Your task to perform on an android device: toggle location history Image 0: 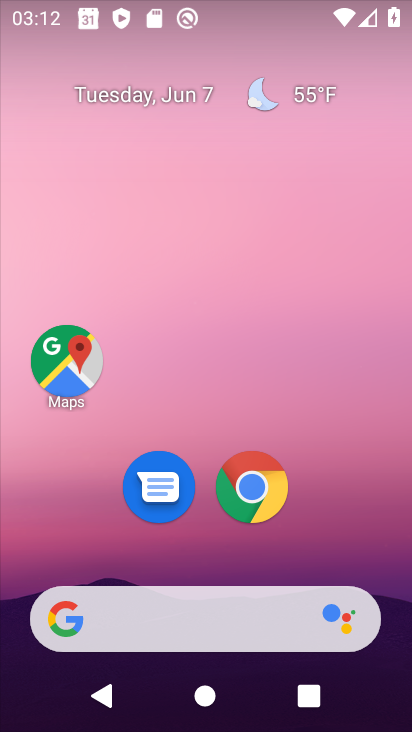
Step 0: drag from (242, 652) to (188, 144)
Your task to perform on an android device: toggle location history Image 1: 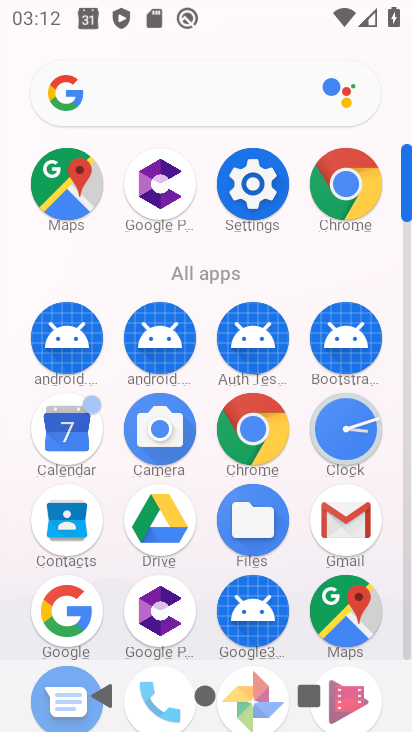
Step 1: click (246, 194)
Your task to perform on an android device: toggle location history Image 2: 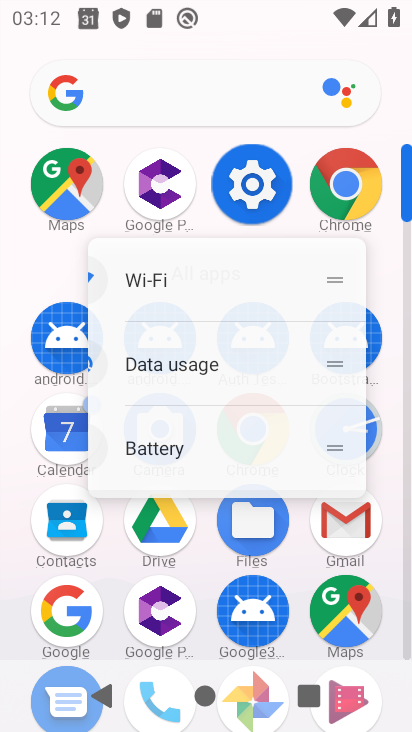
Step 2: click (246, 194)
Your task to perform on an android device: toggle location history Image 3: 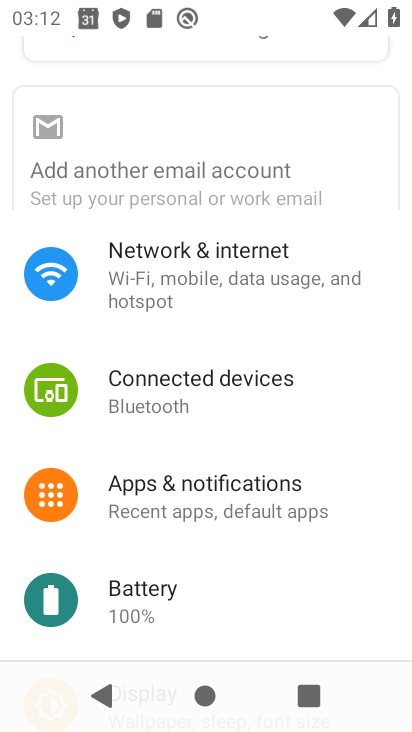
Step 3: click (246, 194)
Your task to perform on an android device: toggle location history Image 4: 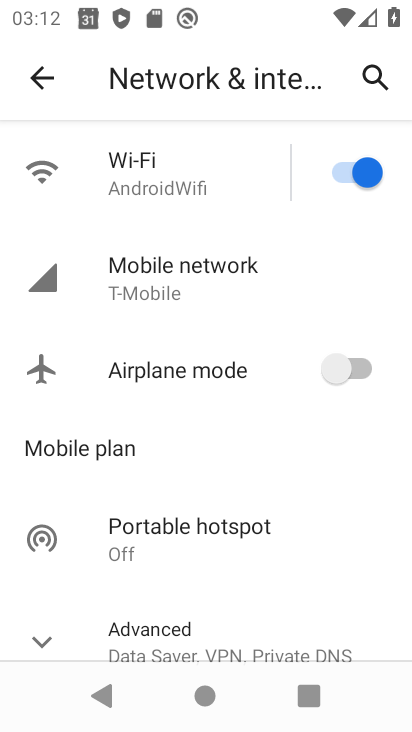
Step 4: click (36, 77)
Your task to perform on an android device: toggle location history Image 5: 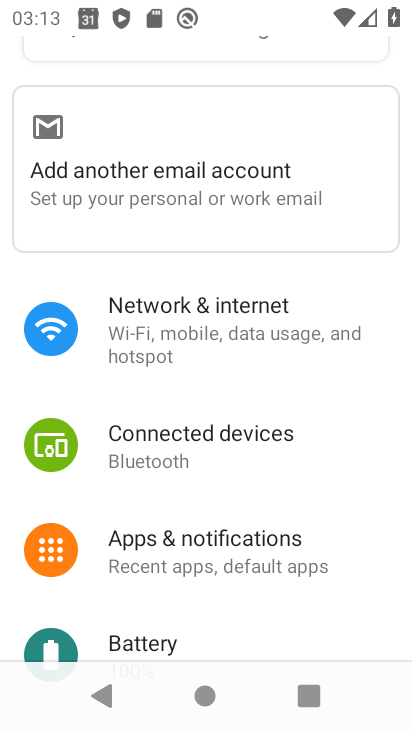
Step 5: drag from (162, 455) to (145, 258)
Your task to perform on an android device: toggle location history Image 6: 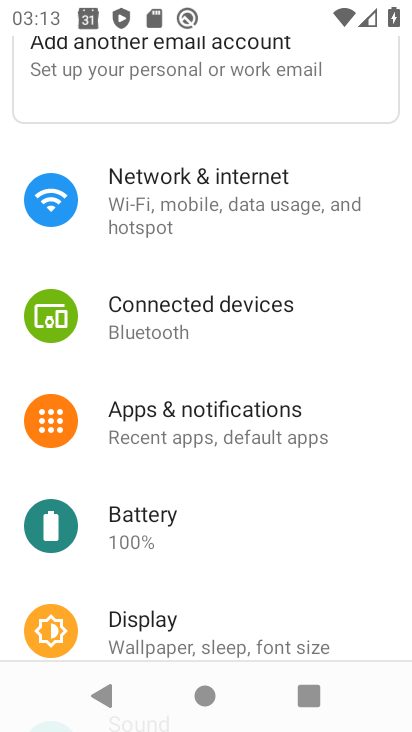
Step 6: drag from (190, 486) to (178, 183)
Your task to perform on an android device: toggle location history Image 7: 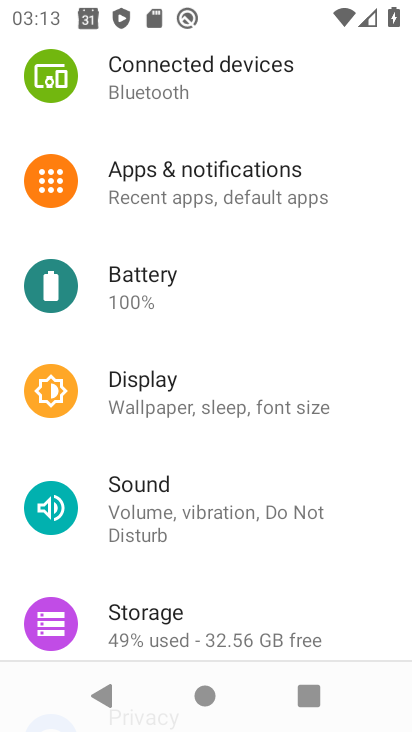
Step 7: drag from (194, 565) to (188, 216)
Your task to perform on an android device: toggle location history Image 8: 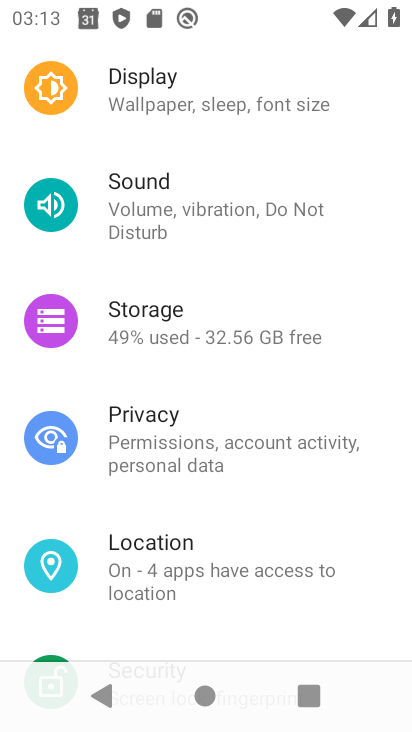
Step 8: drag from (242, 440) to (206, 178)
Your task to perform on an android device: toggle location history Image 9: 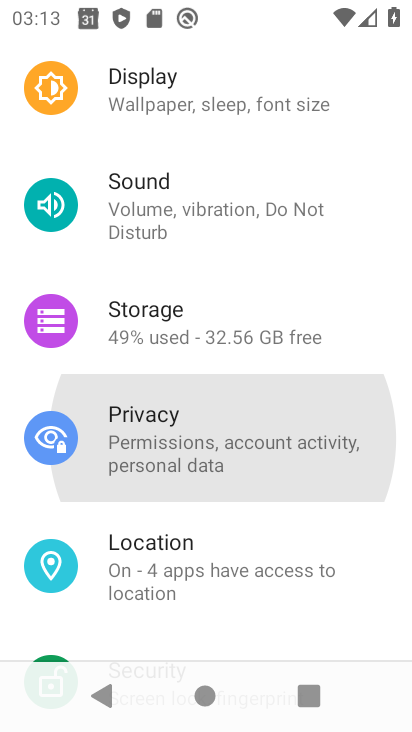
Step 9: drag from (222, 453) to (222, 69)
Your task to perform on an android device: toggle location history Image 10: 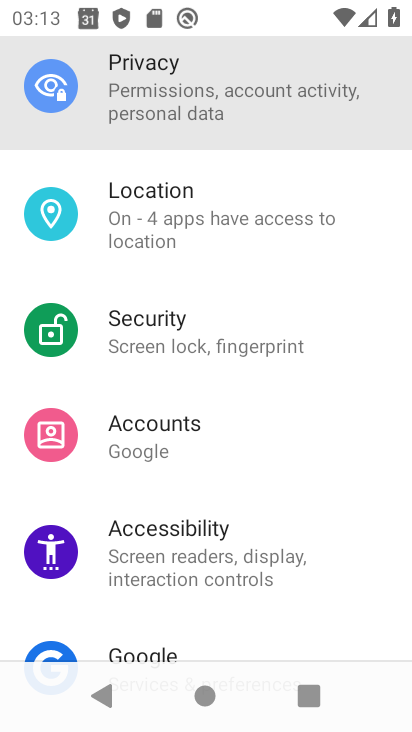
Step 10: drag from (196, 521) to (196, 223)
Your task to perform on an android device: toggle location history Image 11: 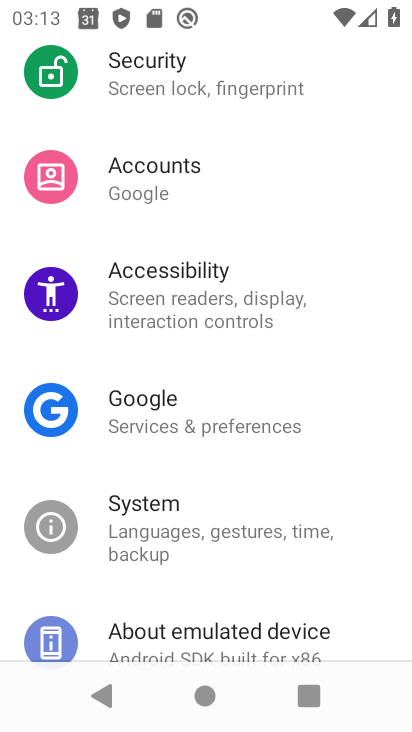
Step 11: drag from (196, 477) to (206, 225)
Your task to perform on an android device: toggle location history Image 12: 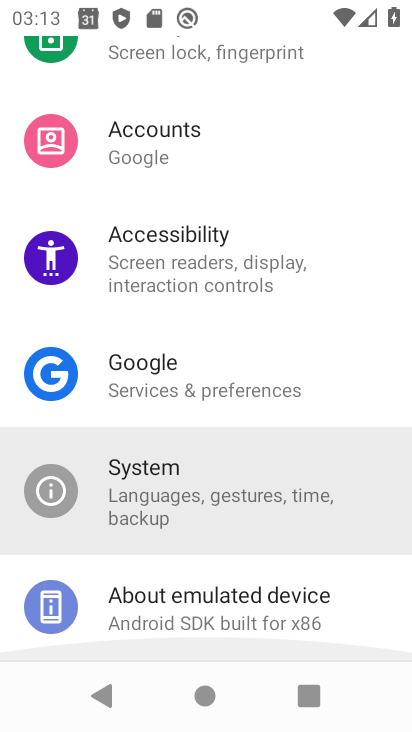
Step 12: drag from (243, 492) to (243, 264)
Your task to perform on an android device: toggle location history Image 13: 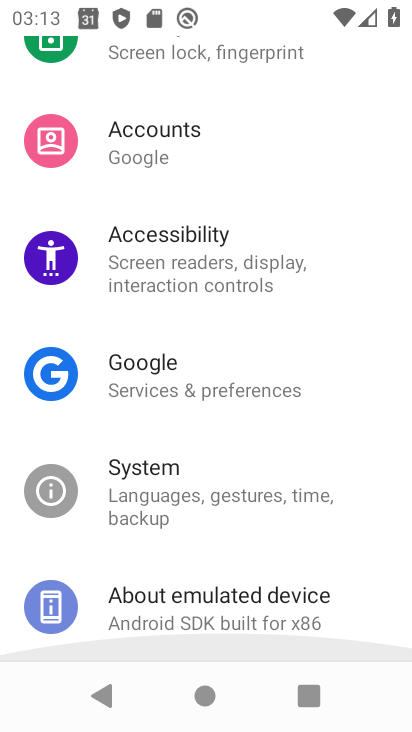
Step 13: drag from (194, 515) to (166, 189)
Your task to perform on an android device: toggle location history Image 14: 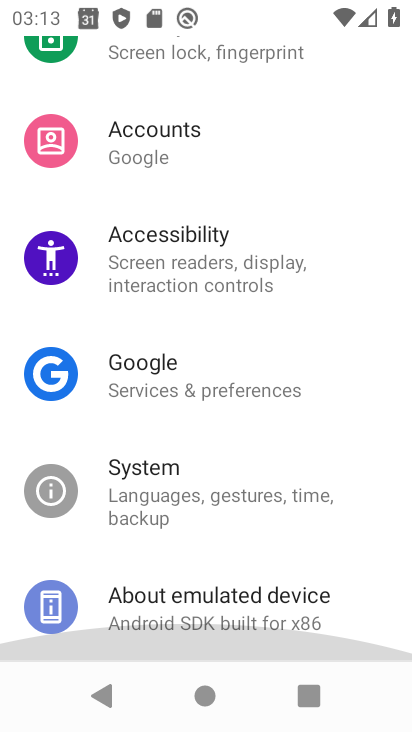
Step 14: drag from (169, 546) to (156, 238)
Your task to perform on an android device: toggle location history Image 15: 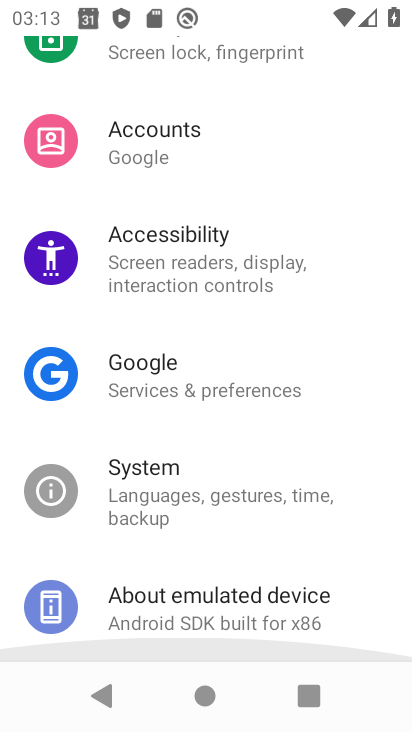
Step 15: click (180, 252)
Your task to perform on an android device: toggle location history Image 16: 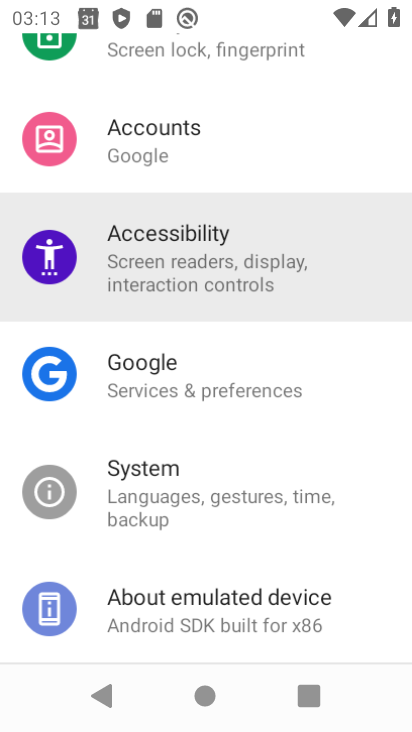
Step 16: drag from (188, 491) to (189, 299)
Your task to perform on an android device: toggle location history Image 17: 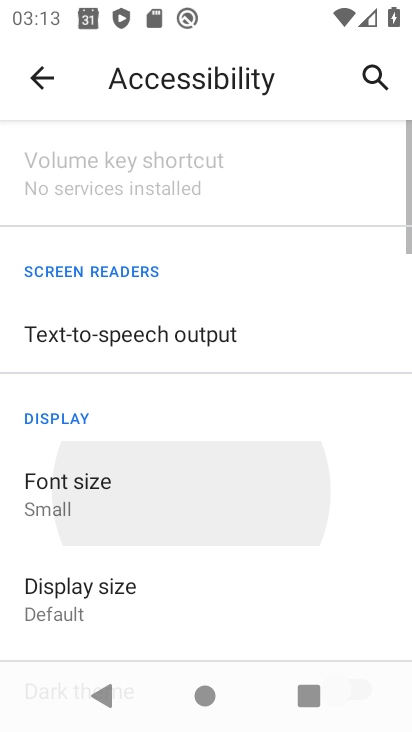
Step 17: drag from (200, 287) to (166, 328)
Your task to perform on an android device: toggle location history Image 18: 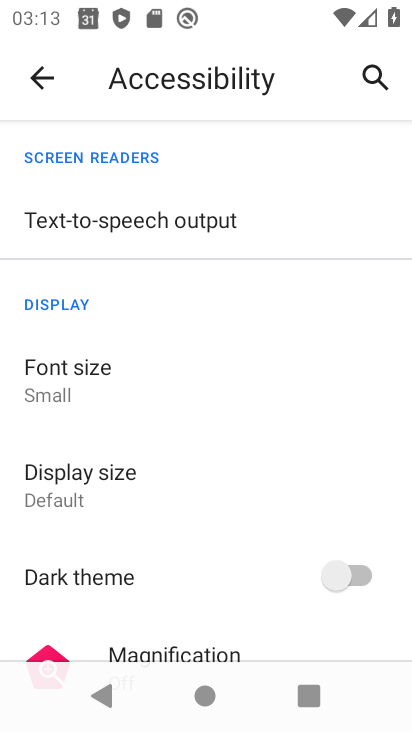
Step 18: click (42, 73)
Your task to perform on an android device: toggle location history Image 19: 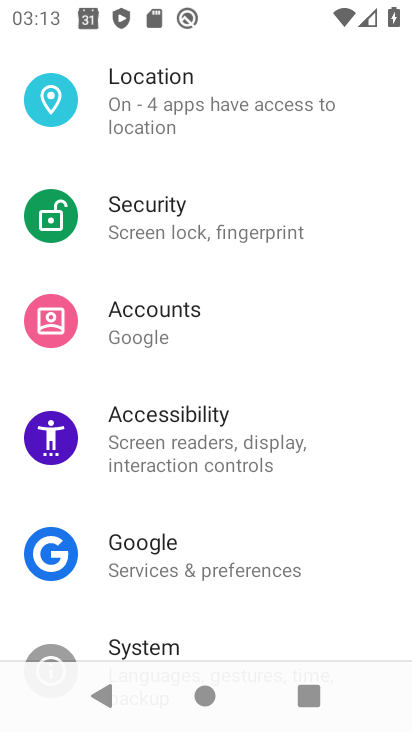
Step 19: click (140, 107)
Your task to perform on an android device: toggle location history Image 20: 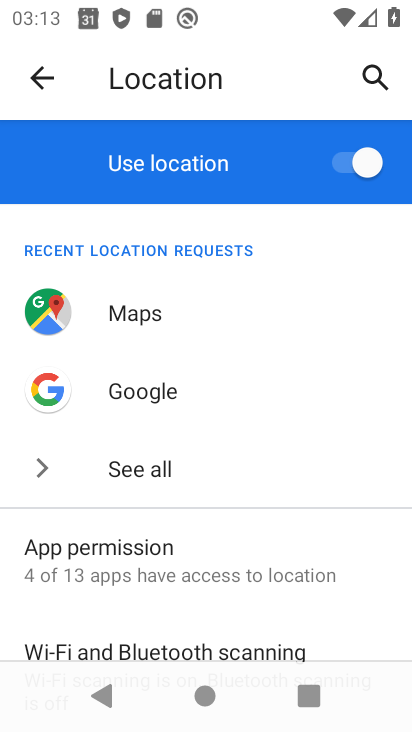
Step 20: drag from (218, 539) to (201, 252)
Your task to perform on an android device: toggle location history Image 21: 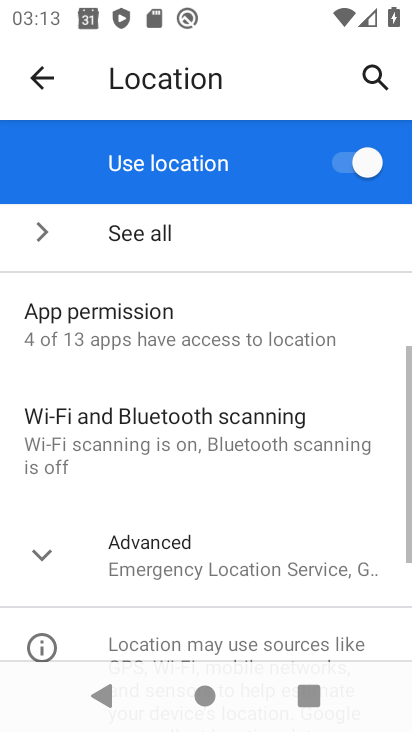
Step 21: drag from (159, 591) to (150, 322)
Your task to perform on an android device: toggle location history Image 22: 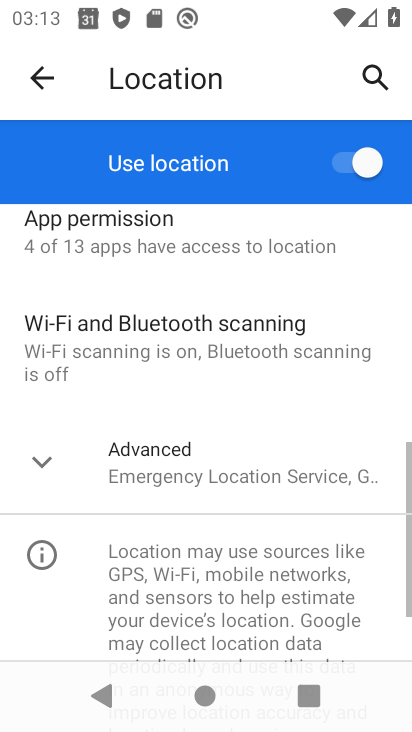
Step 22: drag from (201, 522) to (165, 337)
Your task to perform on an android device: toggle location history Image 23: 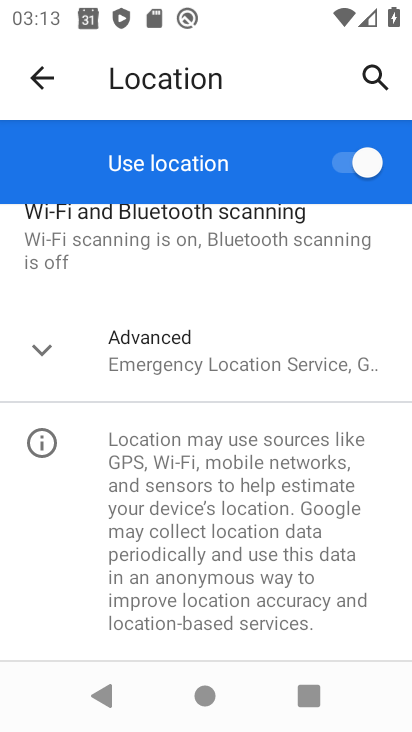
Step 23: drag from (162, 306) to (212, 397)
Your task to perform on an android device: toggle location history Image 24: 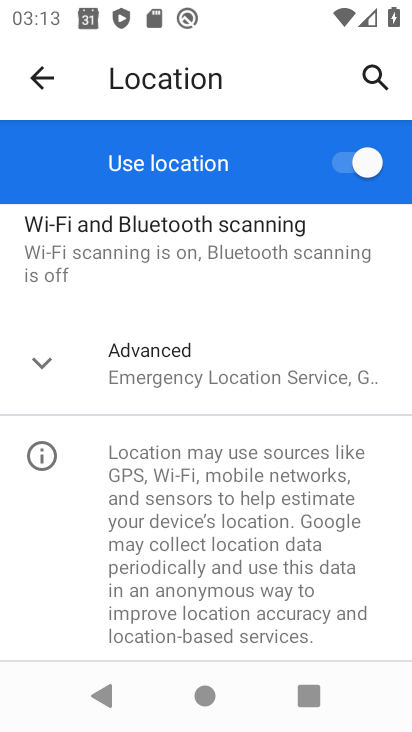
Step 24: drag from (218, 294) to (239, 460)
Your task to perform on an android device: toggle location history Image 25: 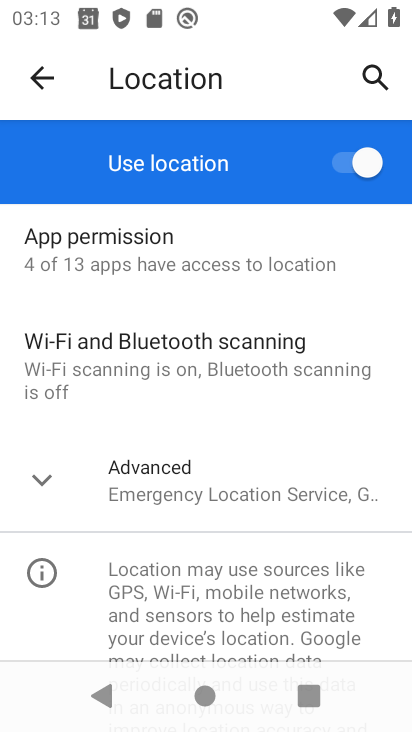
Step 25: click (171, 495)
Your task to perform on an android device: toggle location history Image 26: 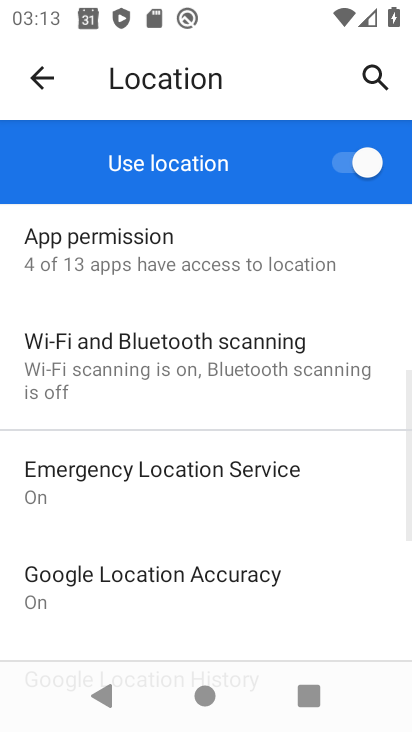
Step 26: drag from (243, 563) to (192, 379)
Your task to perform on an android device: toggle location history Image 27: 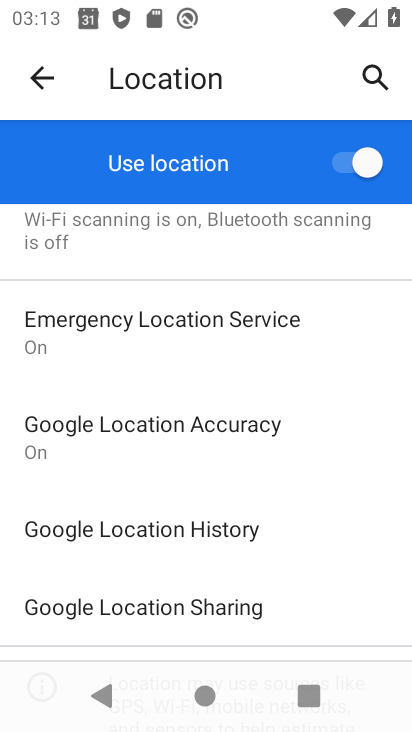
Step 27: click (150, 524)
Your task to perform on an android device: toggle location history Image 28: 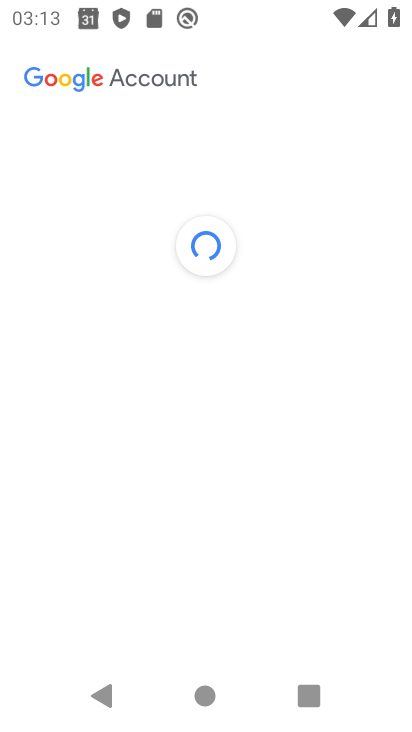
Step 28: task complete